Your task to perform on an android device: uninstall "Move to iOS" Image 0: 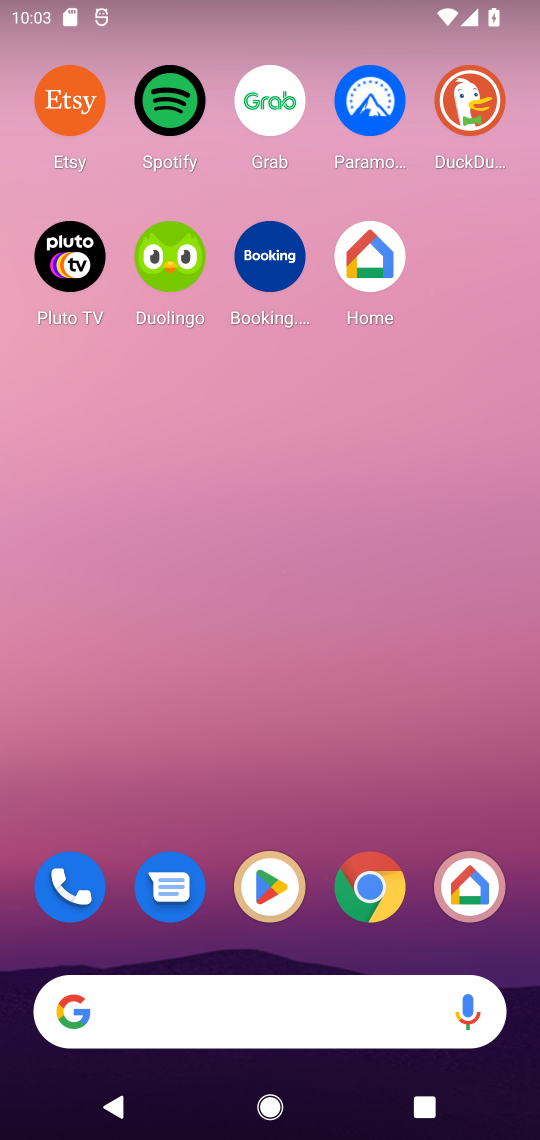
Step 0: click (277, 884)
Your task to perform on an android device: uninstall "Move to iOS" Image 1: 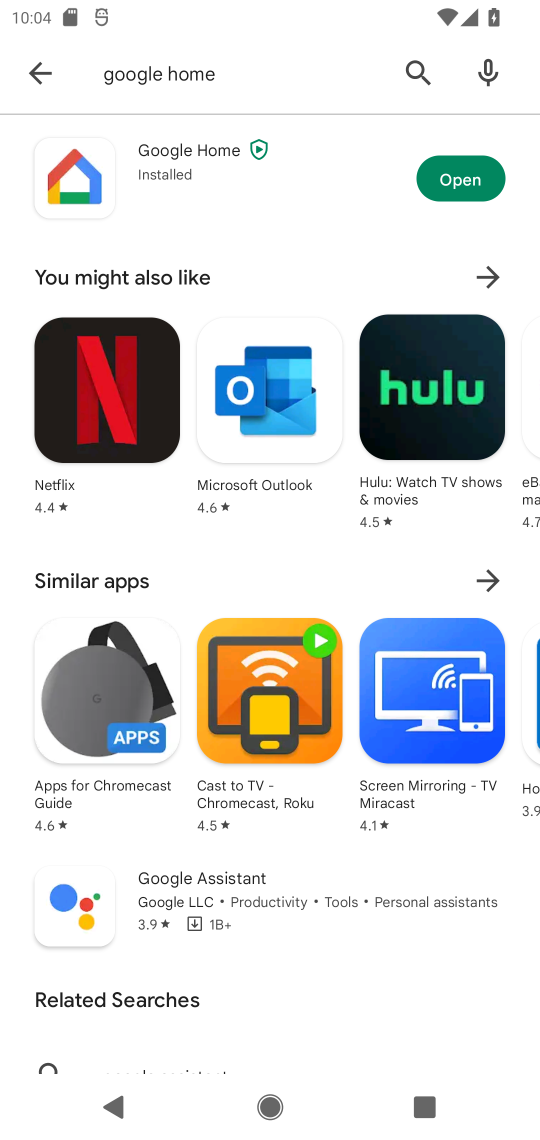
Step 1: click (415, 74)
Your task to perform on an android device: uninstall "Move to iOS" Image 2: 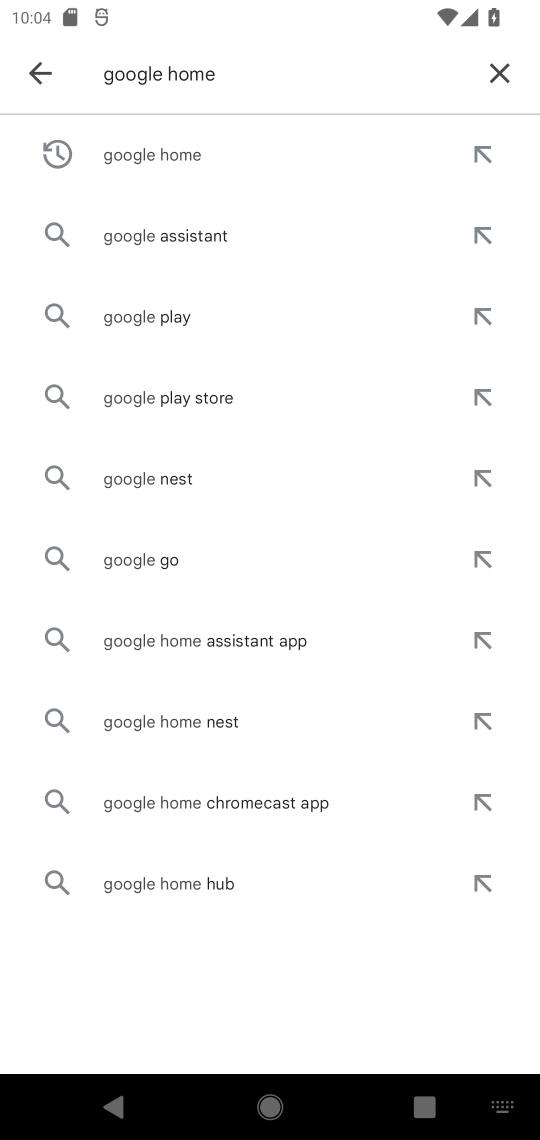
Step 2: click (497, 71)
Your task to perform on an android device: uninstall "Move to iOS" Image 3: 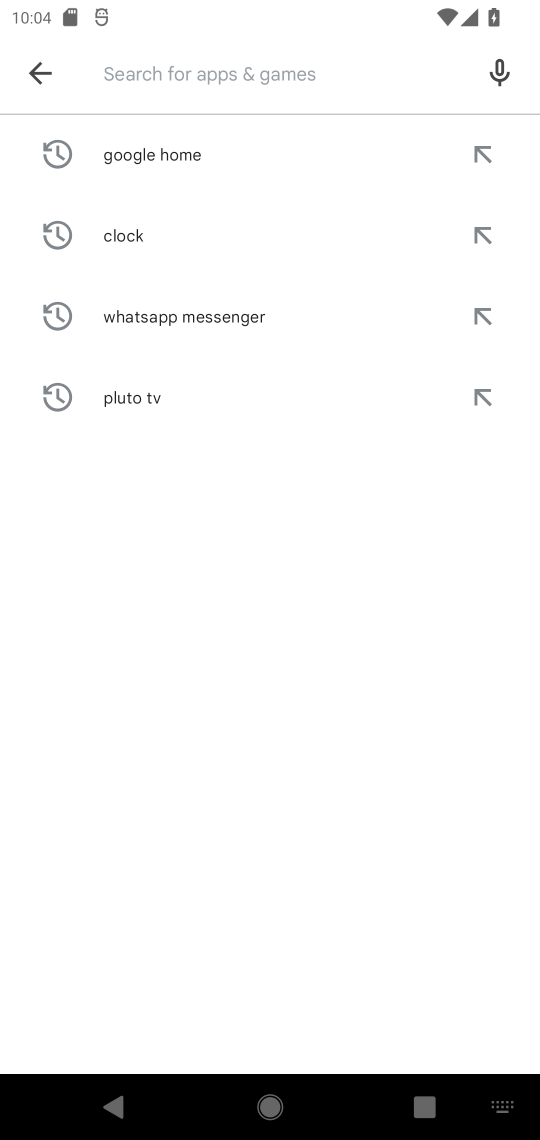
Step 3: type "Move to iOS"
Your task to perform on an android device: uninstall "Move to iOS" Image 4: 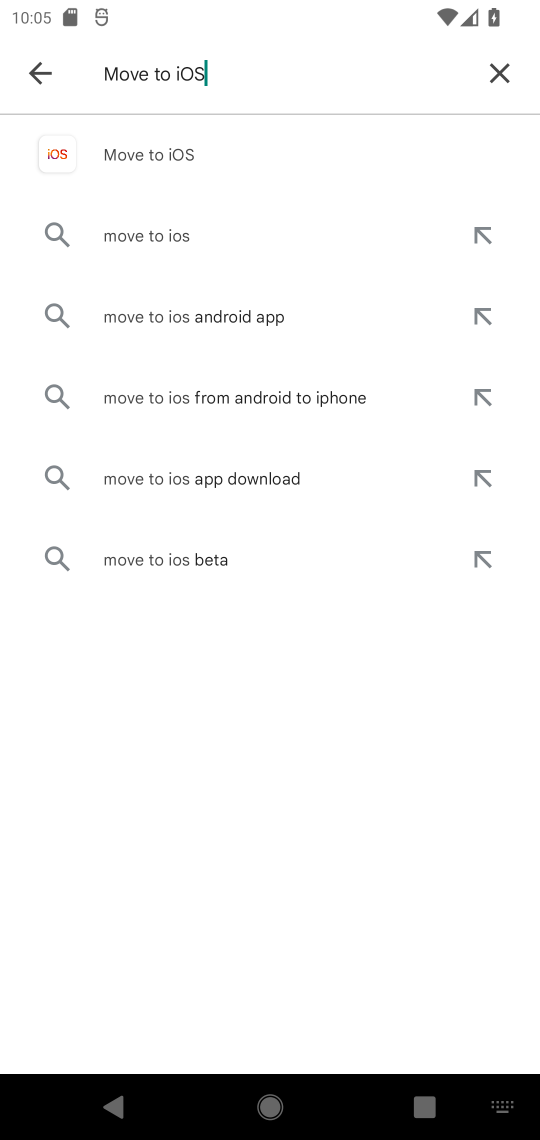
Step 4: click (128, 175)
Your task to perform on an android device: uninstall "Move to iOS" Image 5: 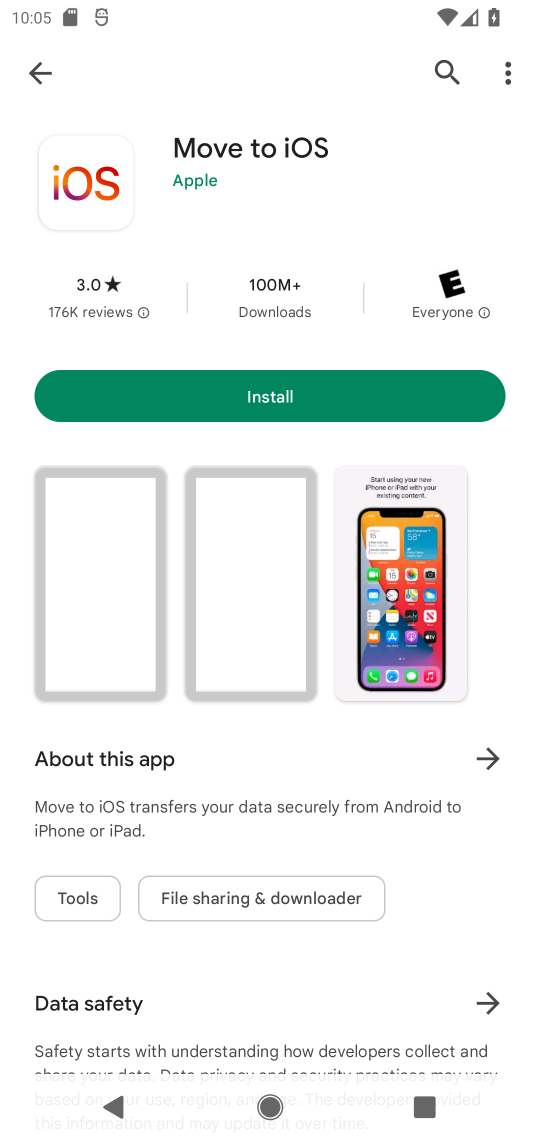
Step 5: task complete